Your task to perform on an android device: What's the weather going to be tomorrow? Image 0: 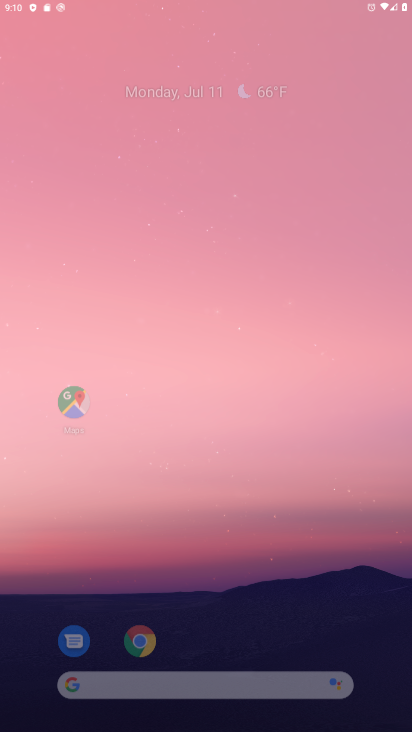
Step 0: drag from (309, 349) to (317, 128)
Your task to perform on an android device: What's the weather going to be tomorrow? Image 1: 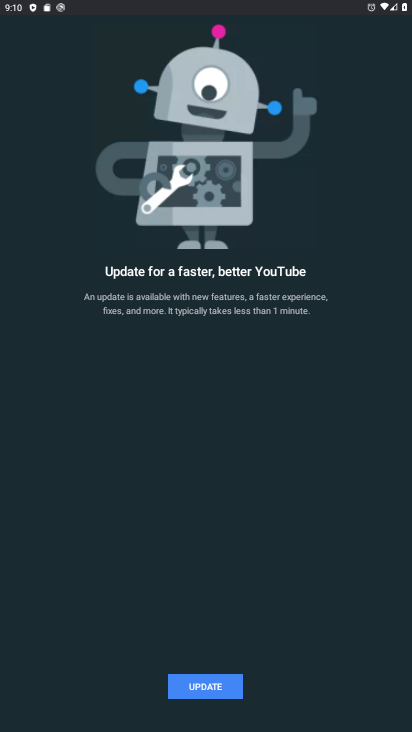
Step 1: press home button
Your task to perform on an android device: What's the weather going to be tomorrow? Image 2: 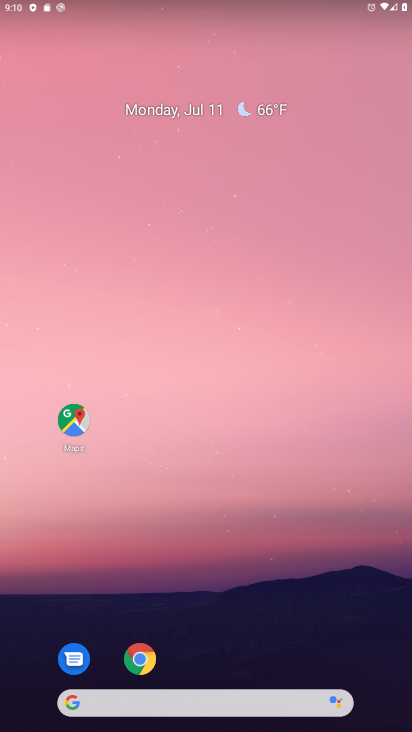
Step 2: click (239, 703)
Your task to perform on an android device: What's the weather going to be tomorrow? Image 3: 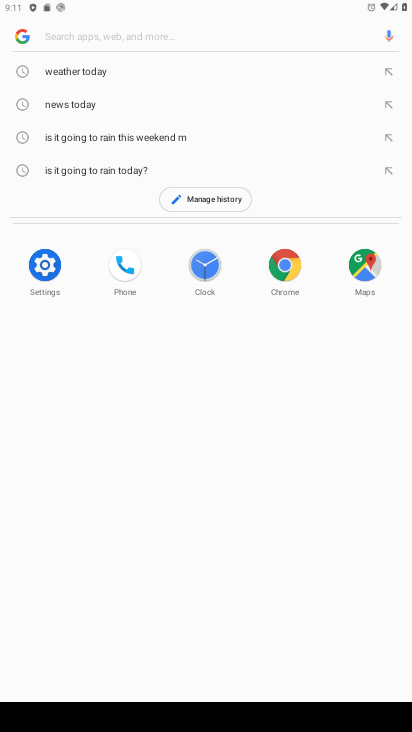
Step 3: type "weather going to be tomorrow"
Your task to perform on an android device: What's the weather going to be tomorrow? Image 4: 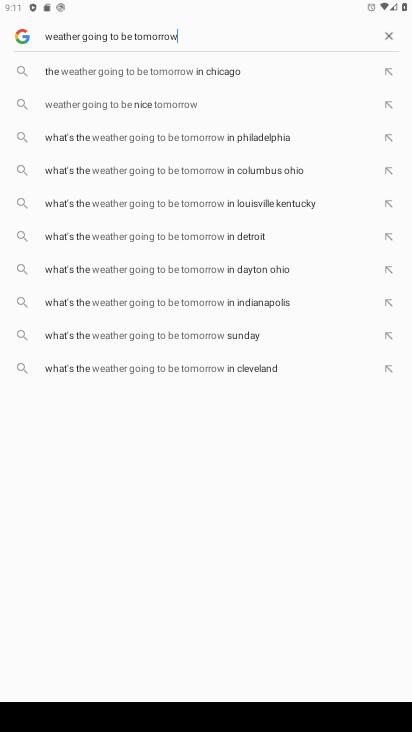
Step 4: click (165, 100)
Your task to perform on an android device: What's the weather going to be tomorrow? Image 5: 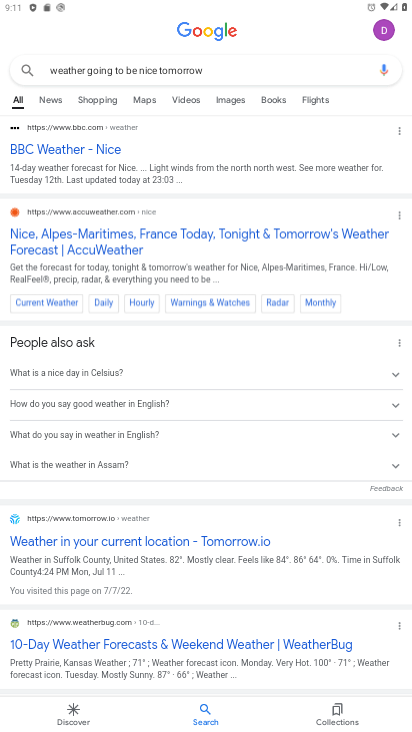
Step 5: task complete